Your task to perform on an android device: Open a new Chrome private window Image 0: 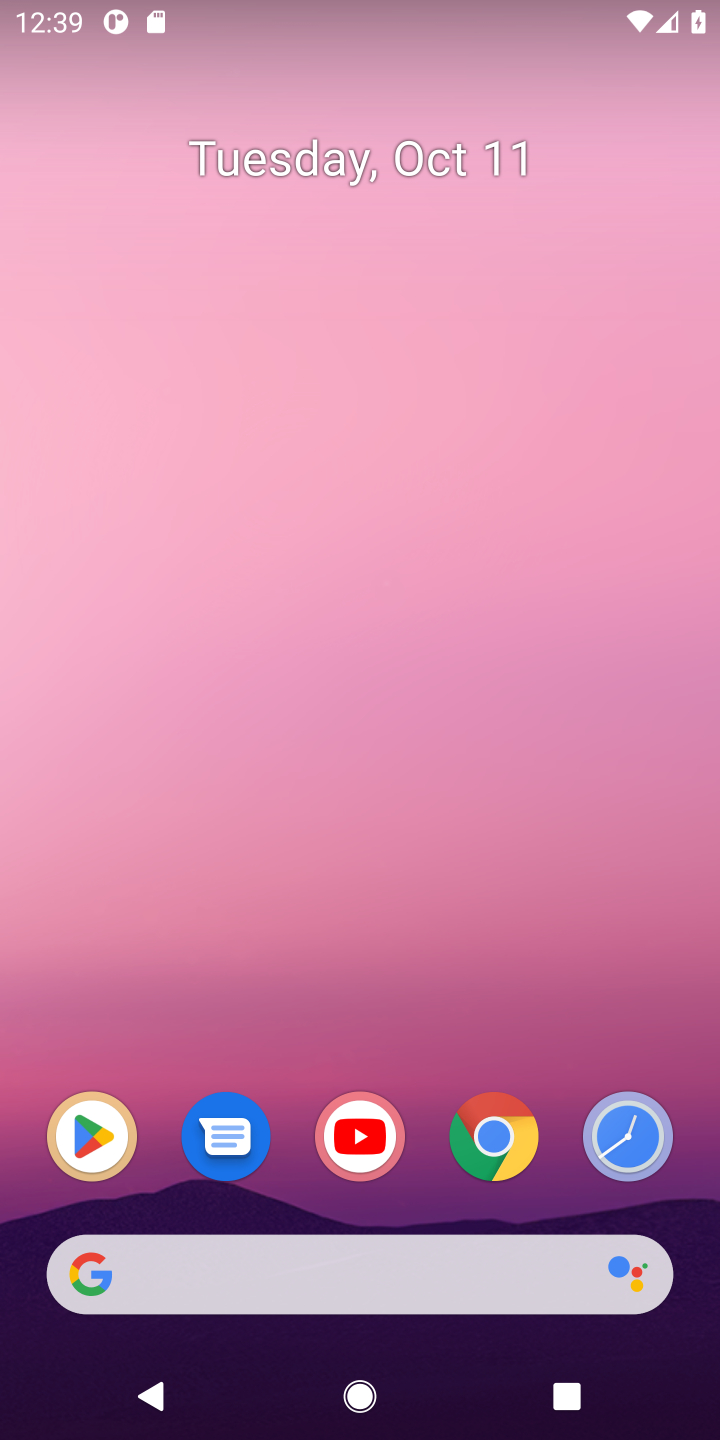
Step 0: drag from (621, 783) to (668, 369)
Your task to perform on an android device: Open a new Chrome private window Image 1: 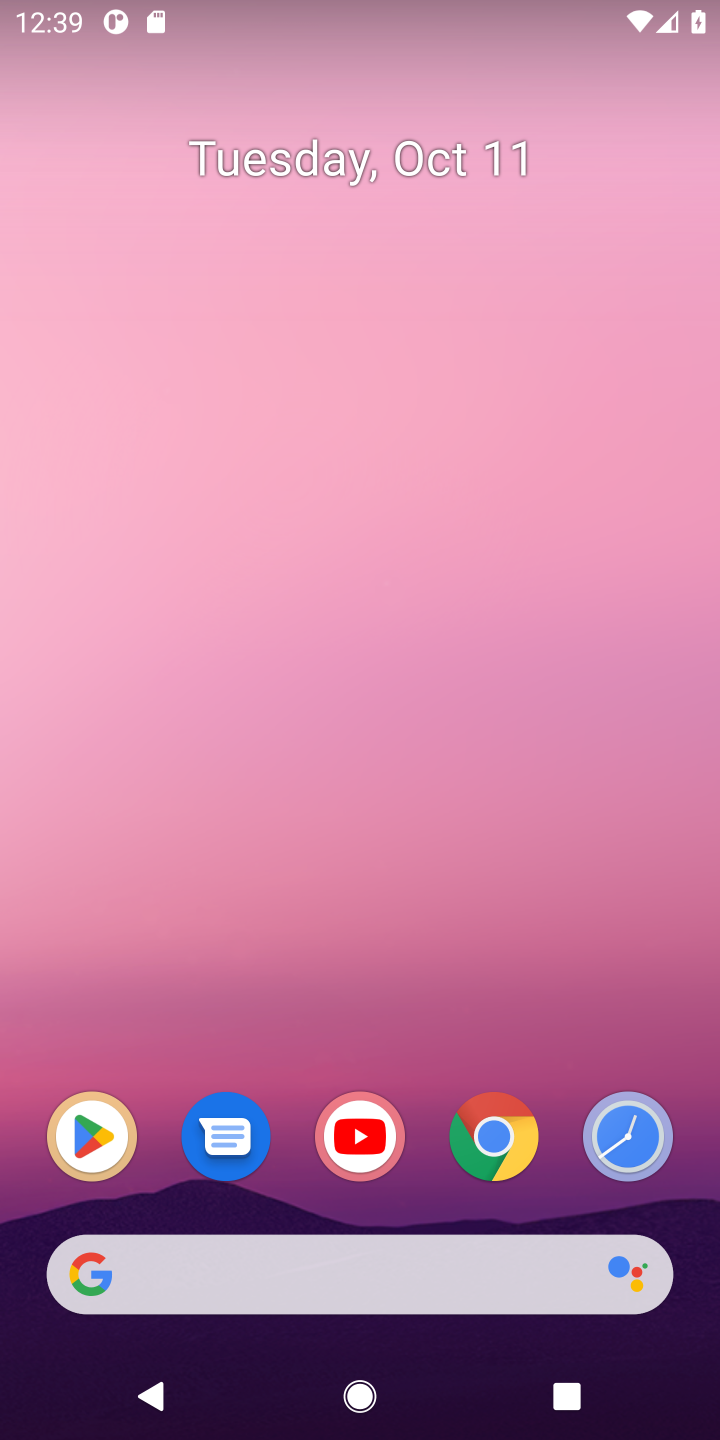
Step 1: drag from (637, 932) to (637, 360)
Your task to perform on an android device: Open a new Chrome private window Image 2: 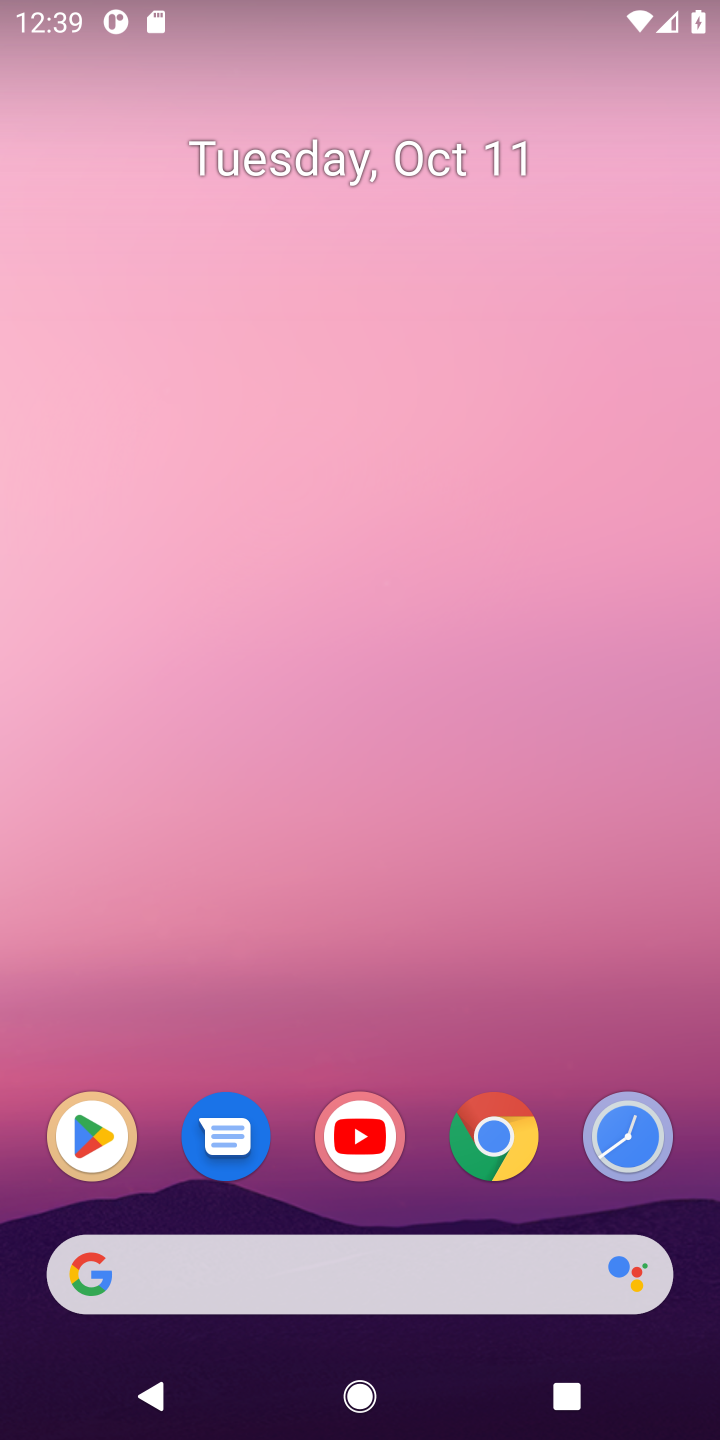
Step 2: drag from (641, 1038) to (604, 56)
Your task to perform on an android device: Open a new Chrome private window Image 3: 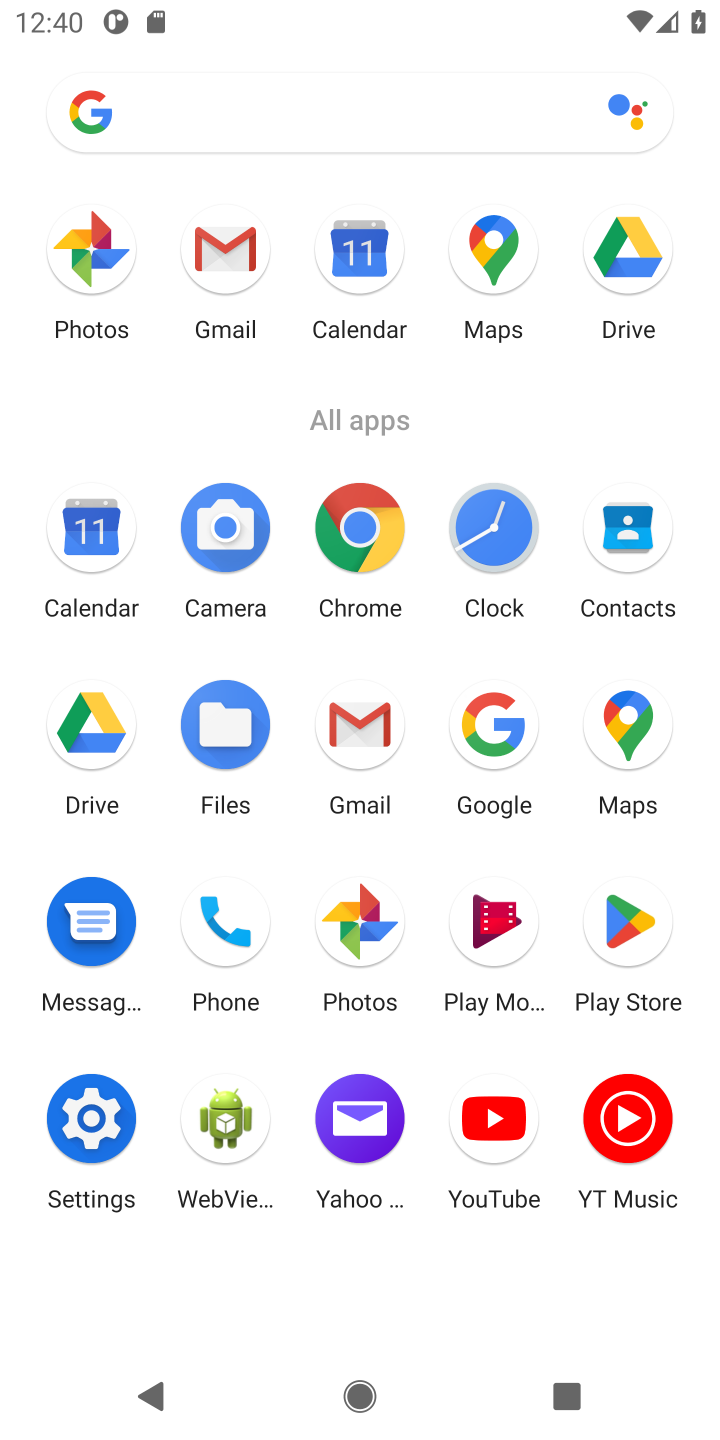
Step 3: click (365, 527)
Your task to perform on an android device: Open a new Chrome private window Image 4: 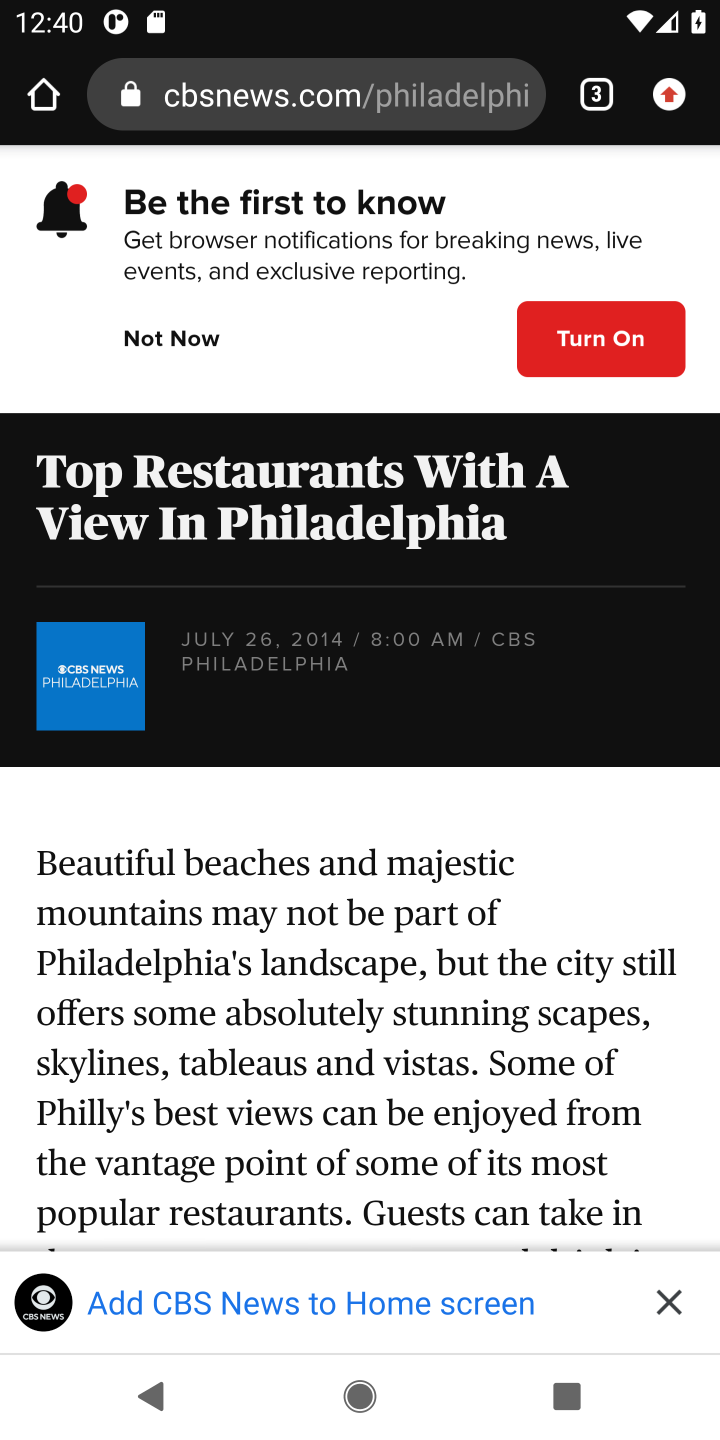
Step 4: click (668, 87)
Your task to perform on an android device: Open a new Chrome private window Image 5: 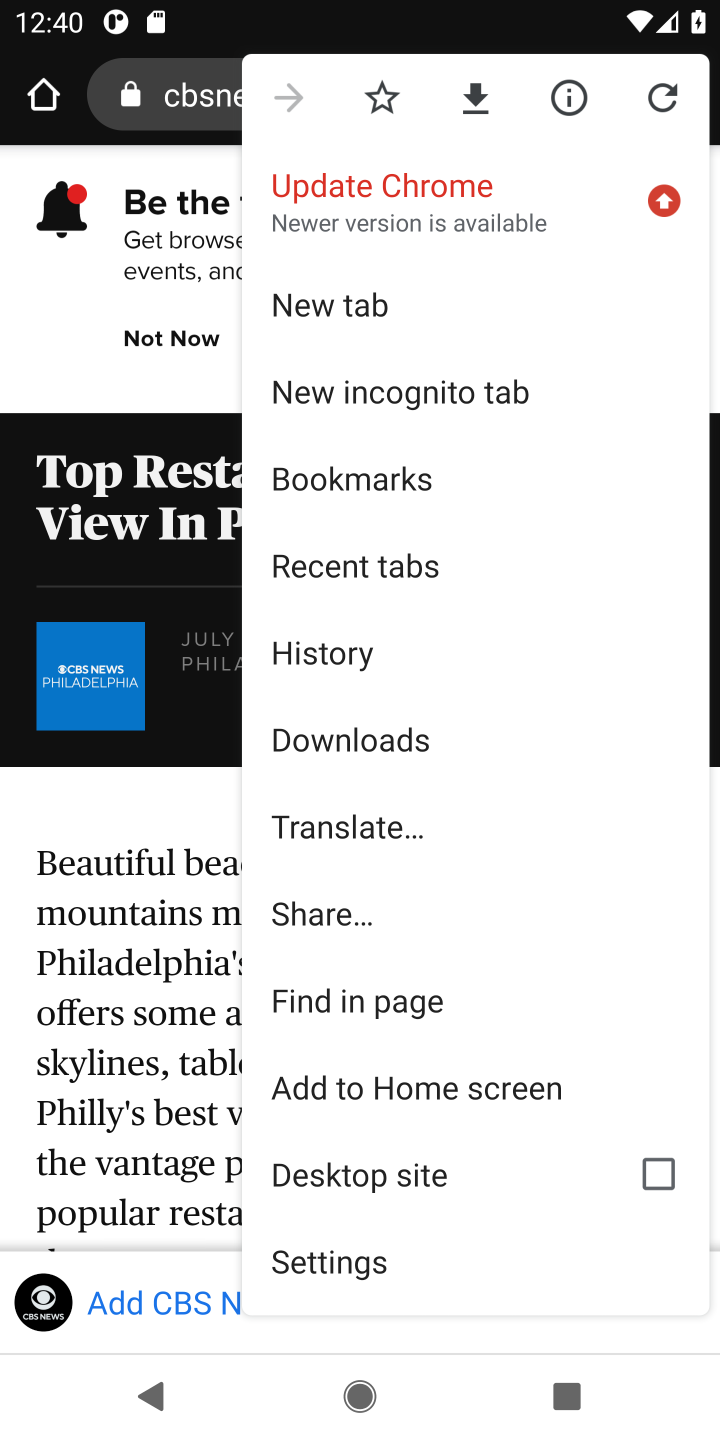
Step 5: click (335, 309)
Your task to perform on an android device: Open a new Chrome private window Image 6: 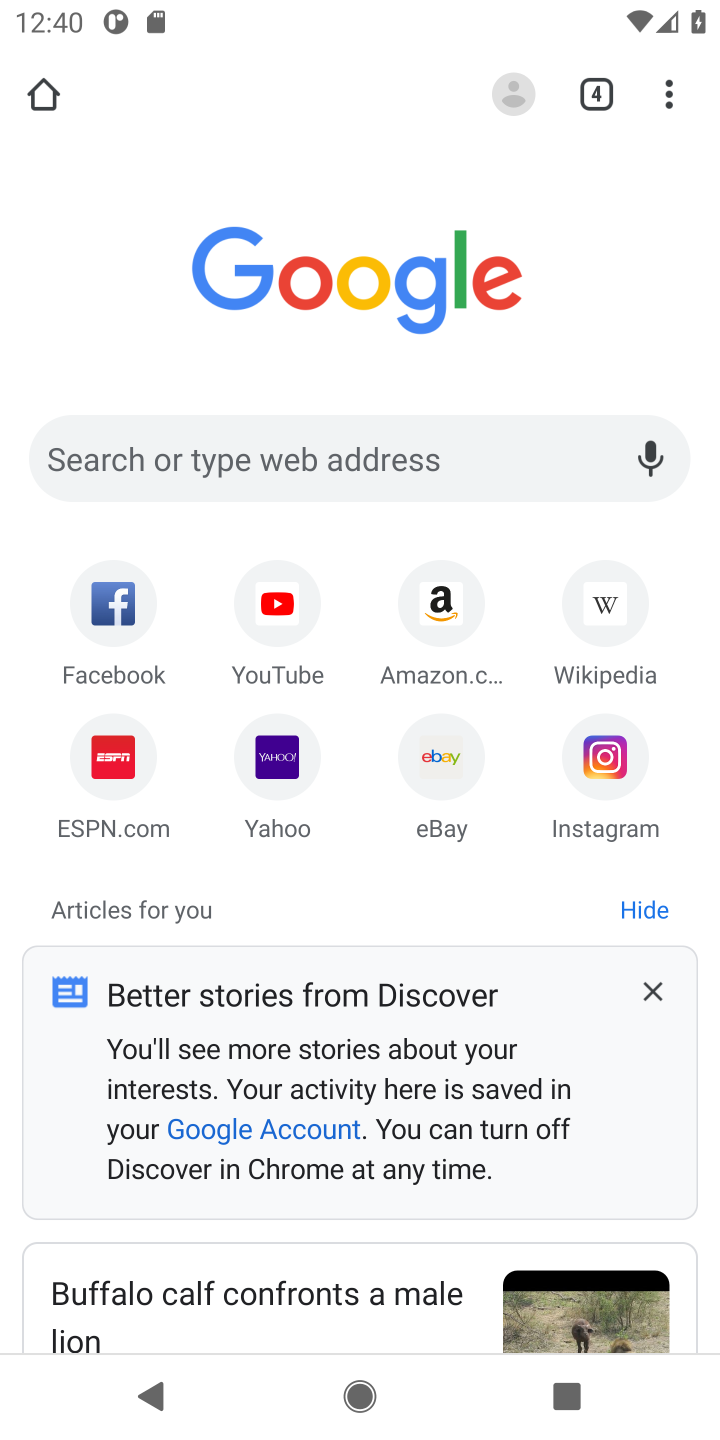
Step 6: task complete